Your task to perform on an android device: Open Chrome and go to settings Image 0: 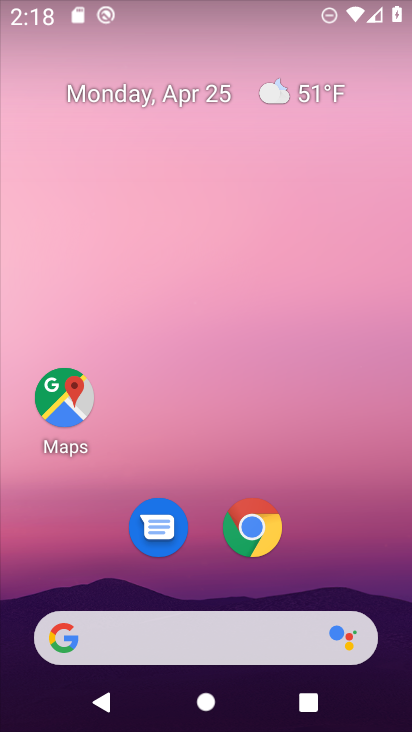
Step 0: drag from (324, 519) to (95, 8)
Your task to perform on an android device: Open Chrome and go to settings Image 1: 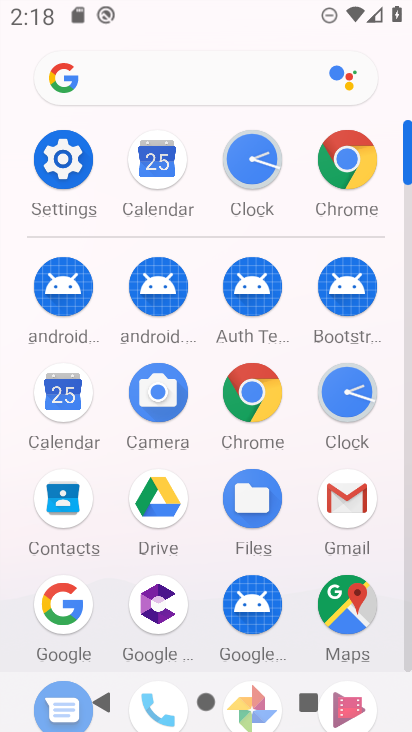
Step 1: drag from (13, 518) to (18, 218)
Your task to perform on an android device: Open Chrome and go to settings Image 2: 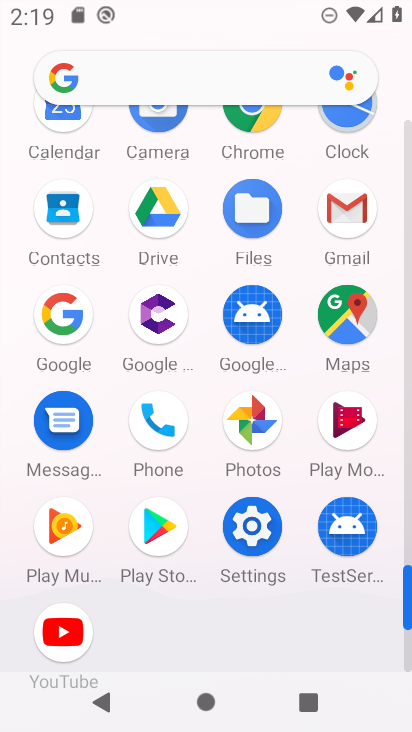
Step 2: drag from (11, 273) to (4, 414)
Your task to perform on an android device: Open Chrome and go to settings Image 3: 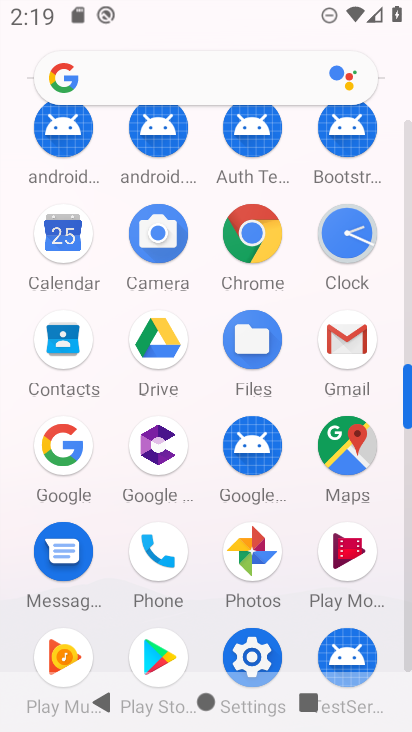
Step 3: click (250, 229)
Your task to perform on an android device: Open Chrome and go to settings Image 4: 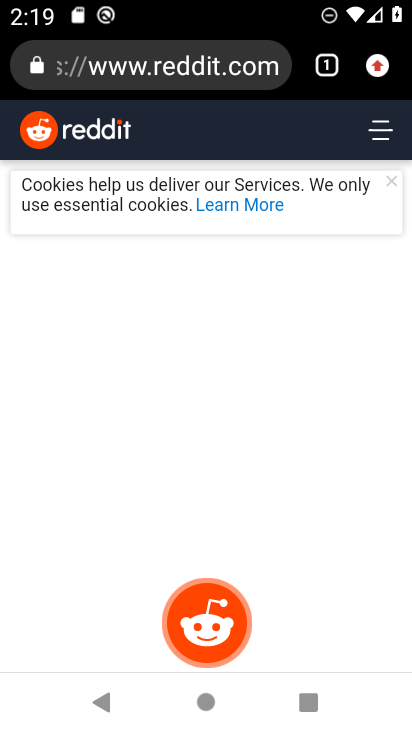
Step 4: task complete